Your task to perform on an android device: Go to Yahoo.com Image 0: 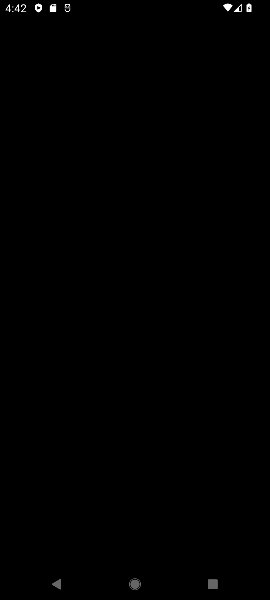
Step 0: press home button
Your task to perform on an android device: Go to Yahoo.com Image 1: 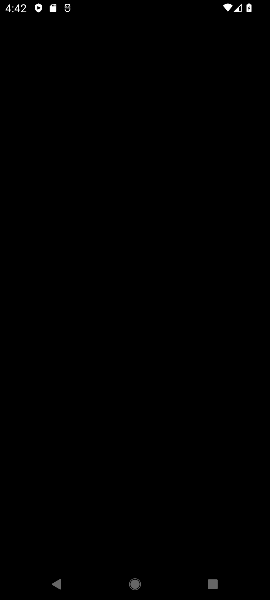
Step 1: press home button
Your task to perform on an android device: Go to Yahoo.com Image 2: 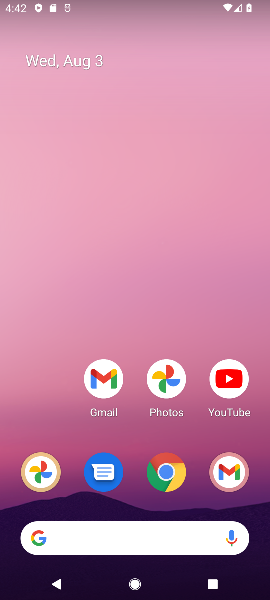
Step 2: drag from (77, 414) to (78, 29)
Your task to perform on an android device: Go to Yahoo.com Image 3: 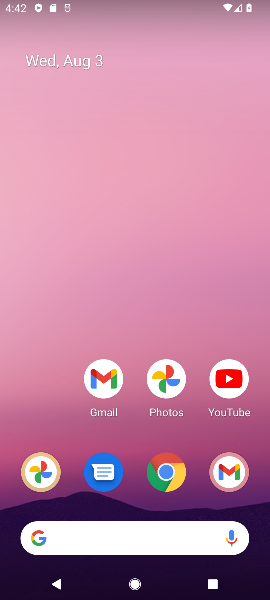
Step 3: drag from (129, 432) to (193, 33)
Your task to perform on an android device: Go to Yahoo.com Image 4: 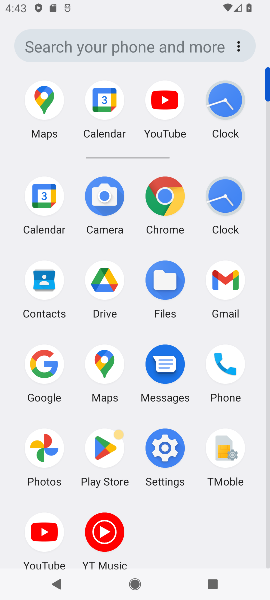
Step 4: click (162, 196)
Your task to perform on an android device: Go to Yahoo.com Image 5: 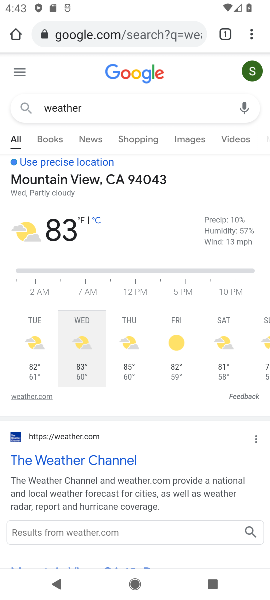
Step 5: click (148, 28)
Your task to perform on an android device: Go to Yahoo.com Image 6: 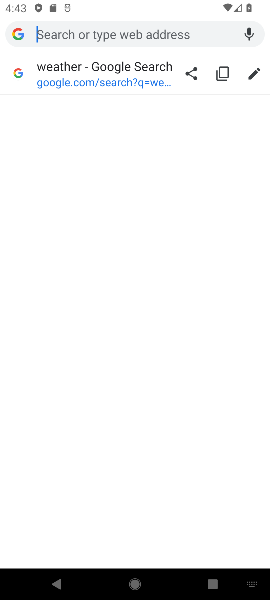
Step 6: type "yahoo.com"
Your task to perform on an android device: Go to Yahoo.com Image 7: 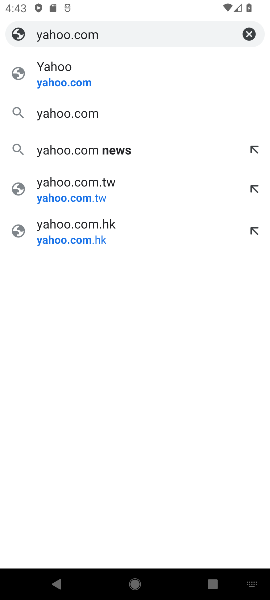
Step 7: click (90, 72)
Your task to perform on an android device: Go to Yahoo.com Image 8: 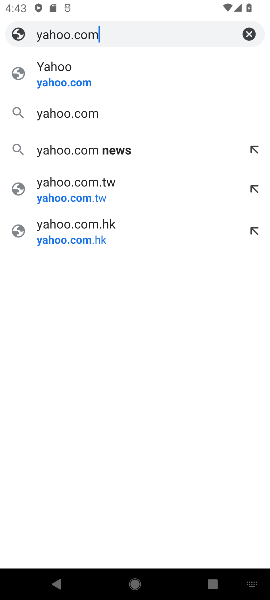
Step 8: click (78, 80)
Your task to perform on an android device: Go to Yahoo.com Image 9: 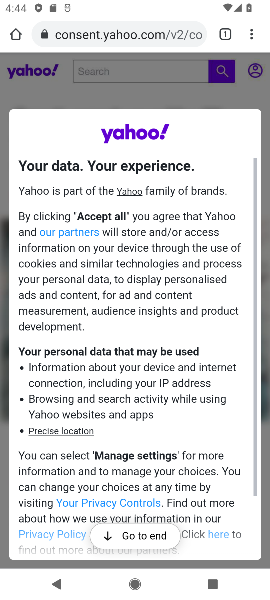
Step 9: task complete